Your task to perform on an android device: Open network settings Image 0: 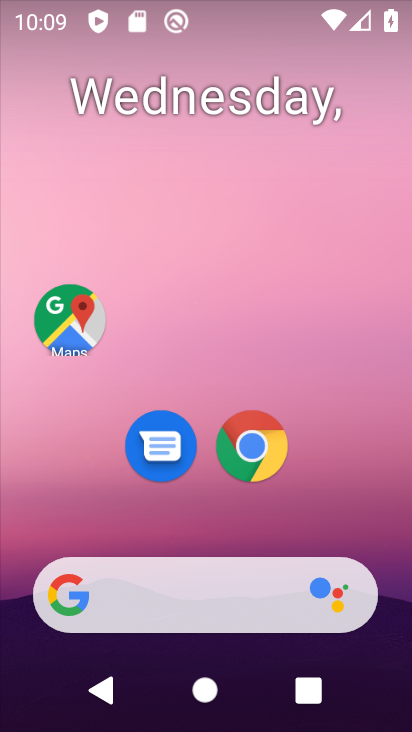
Step 0: drag from (326, 503) to (328, 103)
Your task to perform on an android device: Open network settings Image 1: 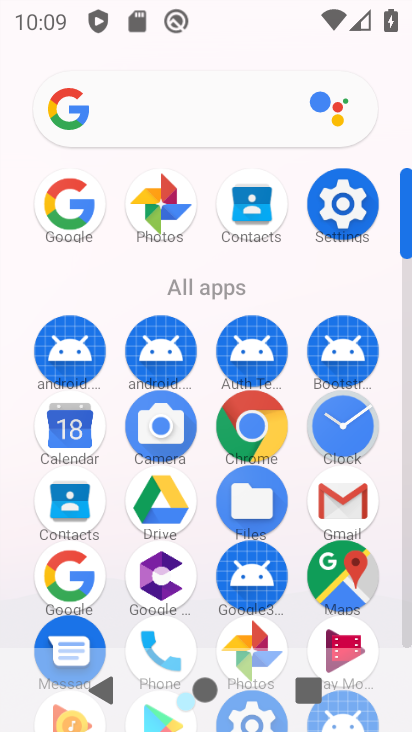
Step 1: click (340, 213)
Your task to perform on an android device: Open network settings Image 2: 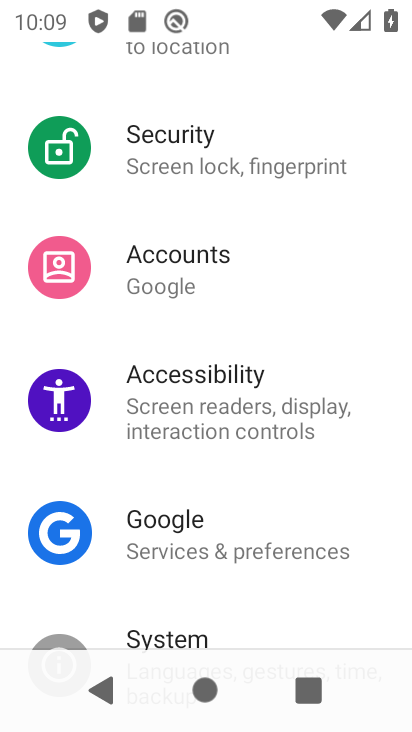
Step 2: drag from (264, 226) to (260, 589)
Your task to perform on an android device: Open network settings Image 3: 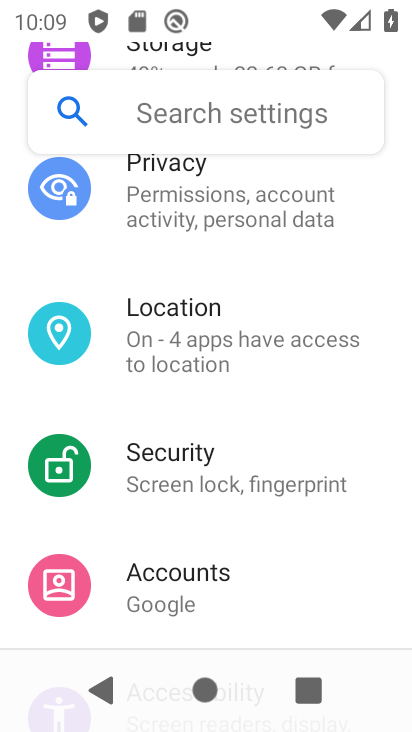
Step 3: drag from (238, 225) to (236, 573)
Your task to perform on an android device: Open network settings Image 4: 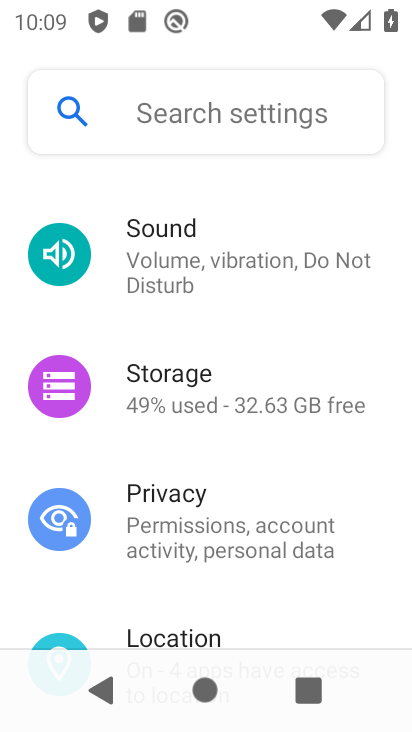
Step 4: drag from (245, 201) to (285, 568)
Your task to perform on an android device: Open network settings Image 5: 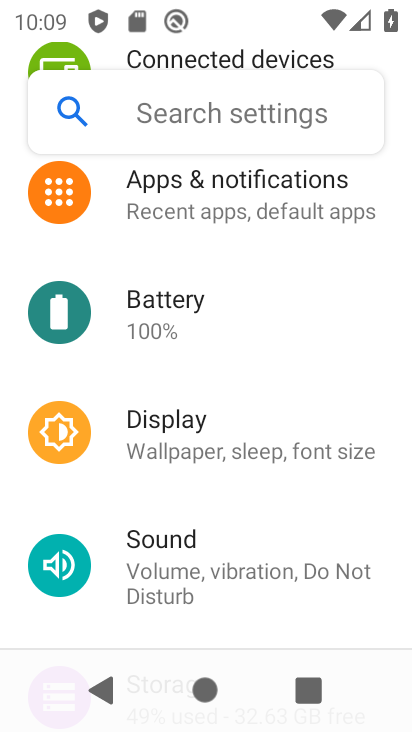
Step 5: drag from (300, 255) to (225, 655)
Your task to perform on an android device: Open network settings Image 6: 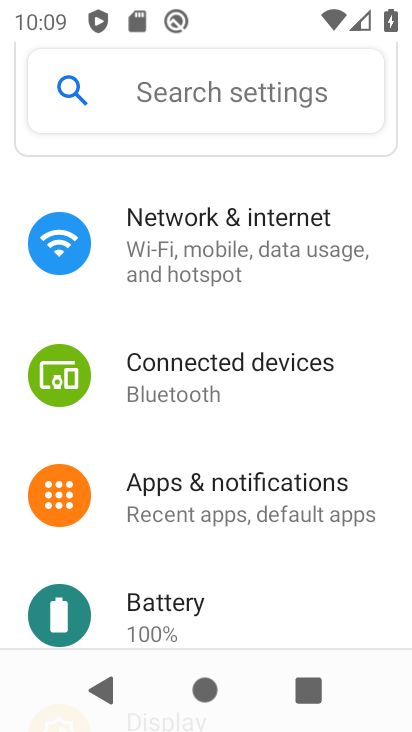
Step 6: click (200, 230)
Your task to perform on an android device: Open network settings Image 7: 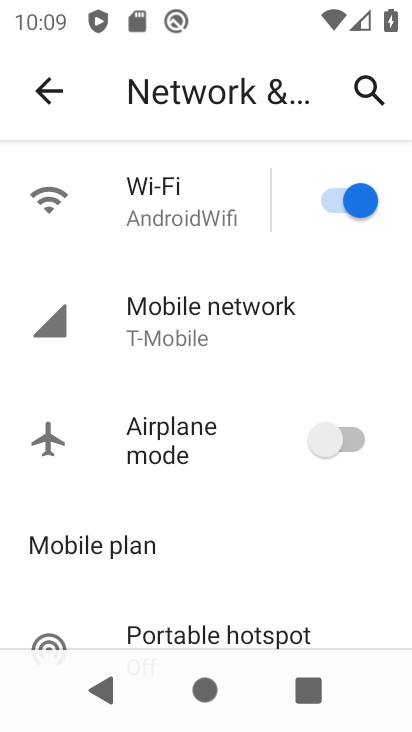
Step 7: task complete